Your task to perform on an android device: turn on airplane mode Image 0: 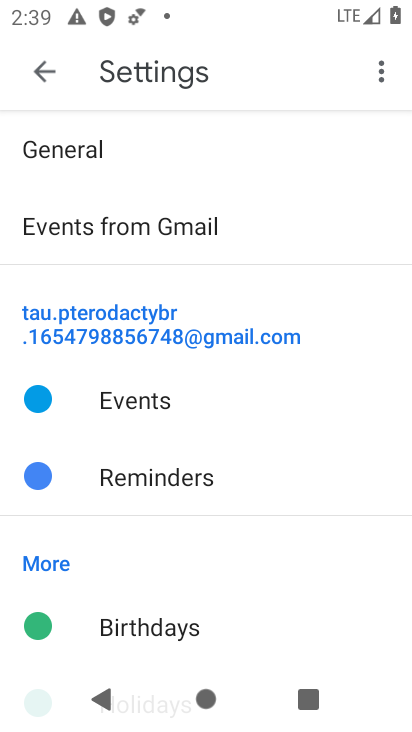
Step 0: press home button
Your task to perform on an android device: turn on airplane mode Image 1: 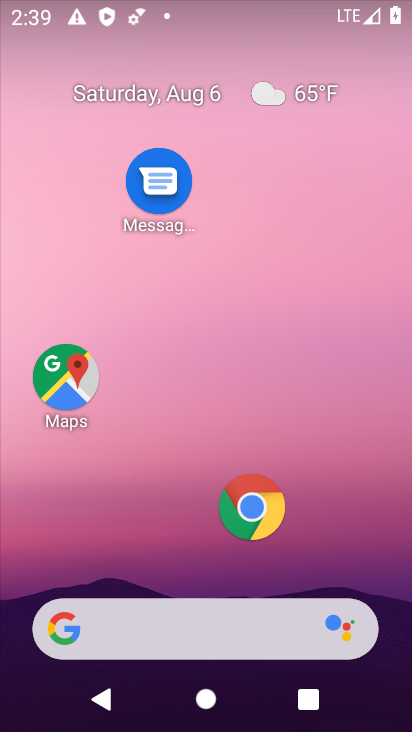
Step 1: drag from (189, 565) to (224, 246)
Your task to perform on an android device: turn on airplane mode Image 2: 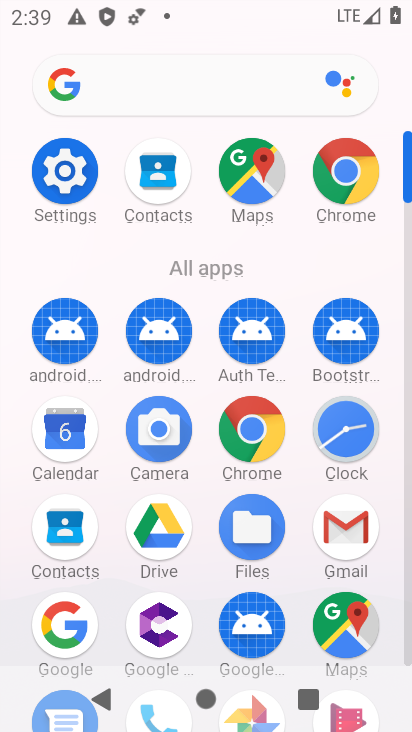
Step 2: click (72, 204)
Your task to perform on an android device: turn on airplane mode Image 3: 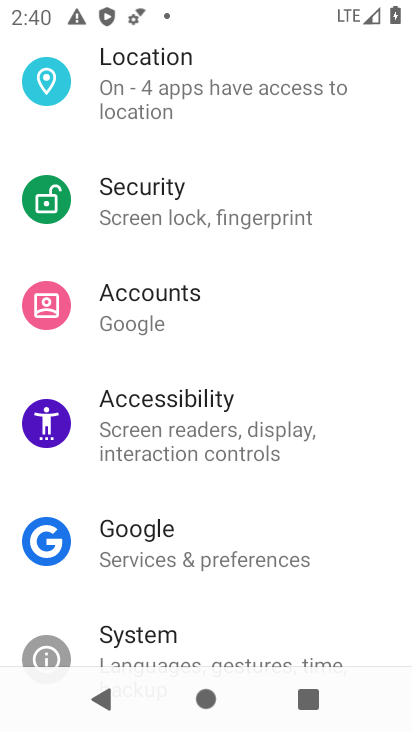
Step 3: drag from (183, 188) to (196, 436)
Your task to perform on an android device: turn on airplane mode Image 4: 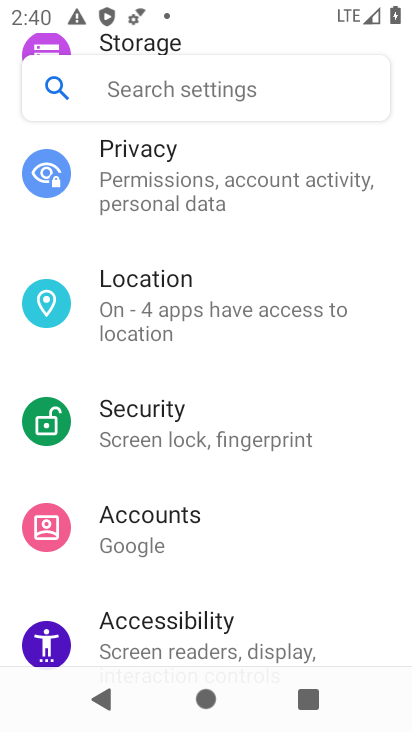
Step 4: drag from (236, 209) to (264, 722)
Your task to perform on an android device: turn on airplane mode Image 5: 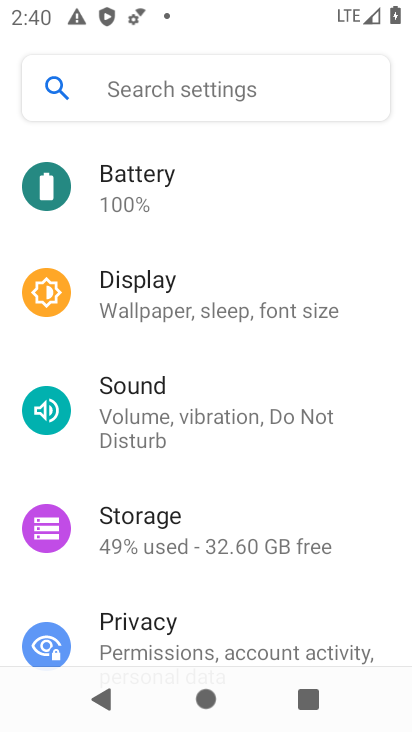
Step 5: drag from (248, 240) to (222, 704)
Your task to perform on an android device: turn on airplane mode Image 6: 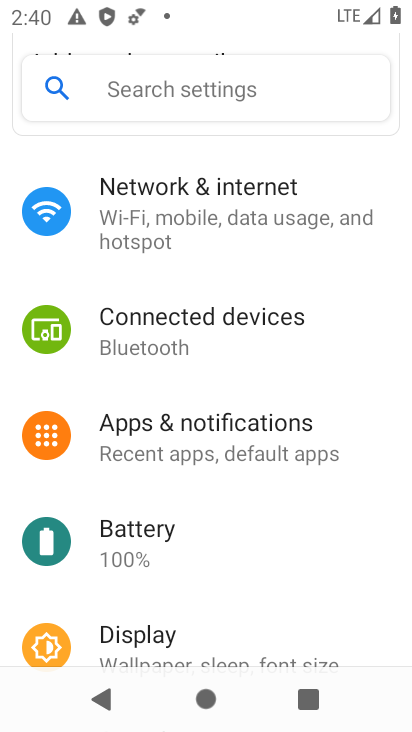
Step 6: drag from (238, 370) to (286, 520)
Your task to perform on an android device: turn on airplane mode Image 7: 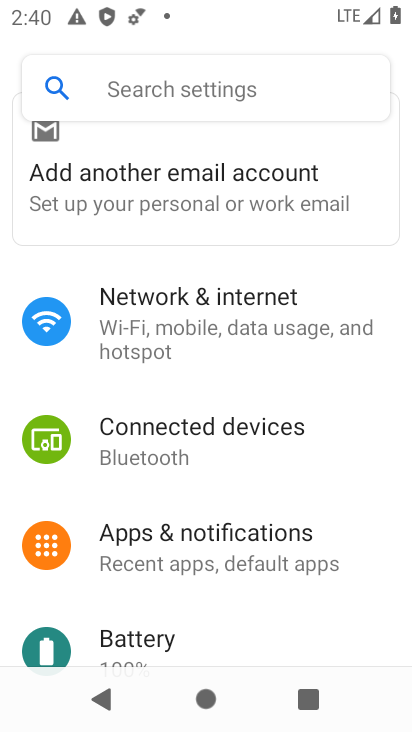
Step 7: click (206, 336)
Your task to perform on an android device: turn on airplane mode Image 8: 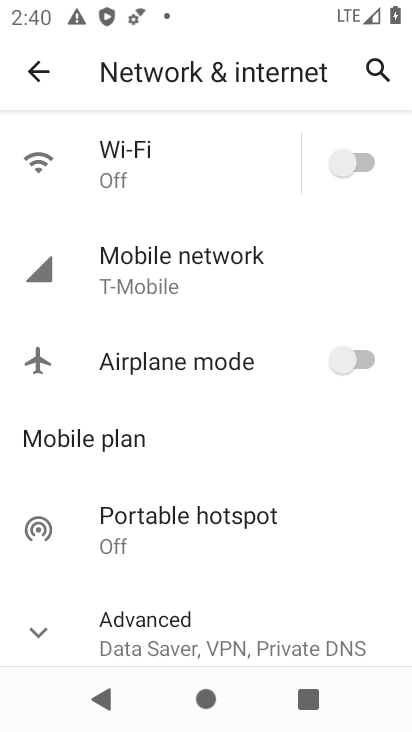
Step 8: click (383, 349)
Your task to perform on an android device: turn on airplane mode Image 9: 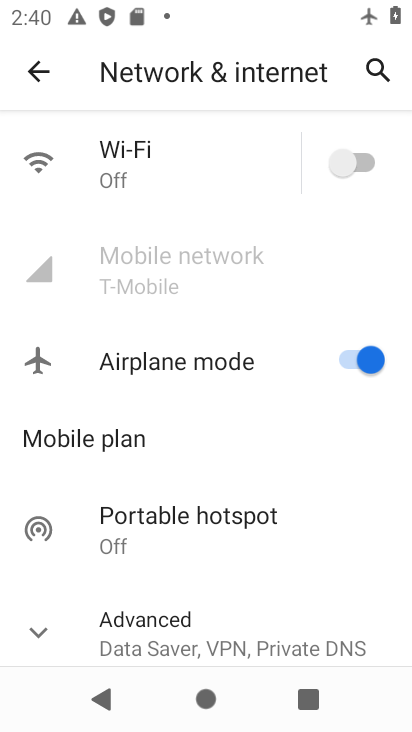
Step 9: task complete